Your task to perform on an android device: Check the weather Image 0: 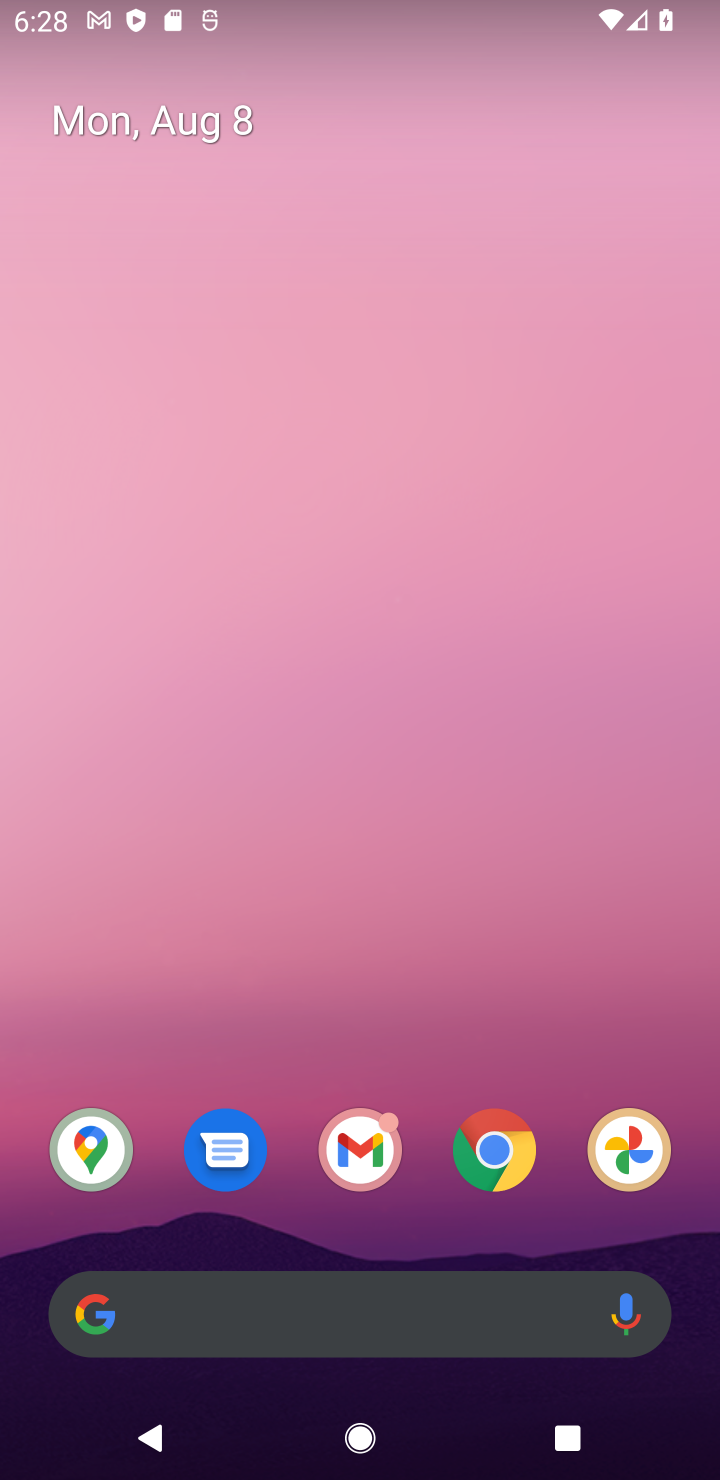
Step 0: drag from (433, 1228) to (271, 182)
Your task to perform on an android device: Check the weather Image 1: 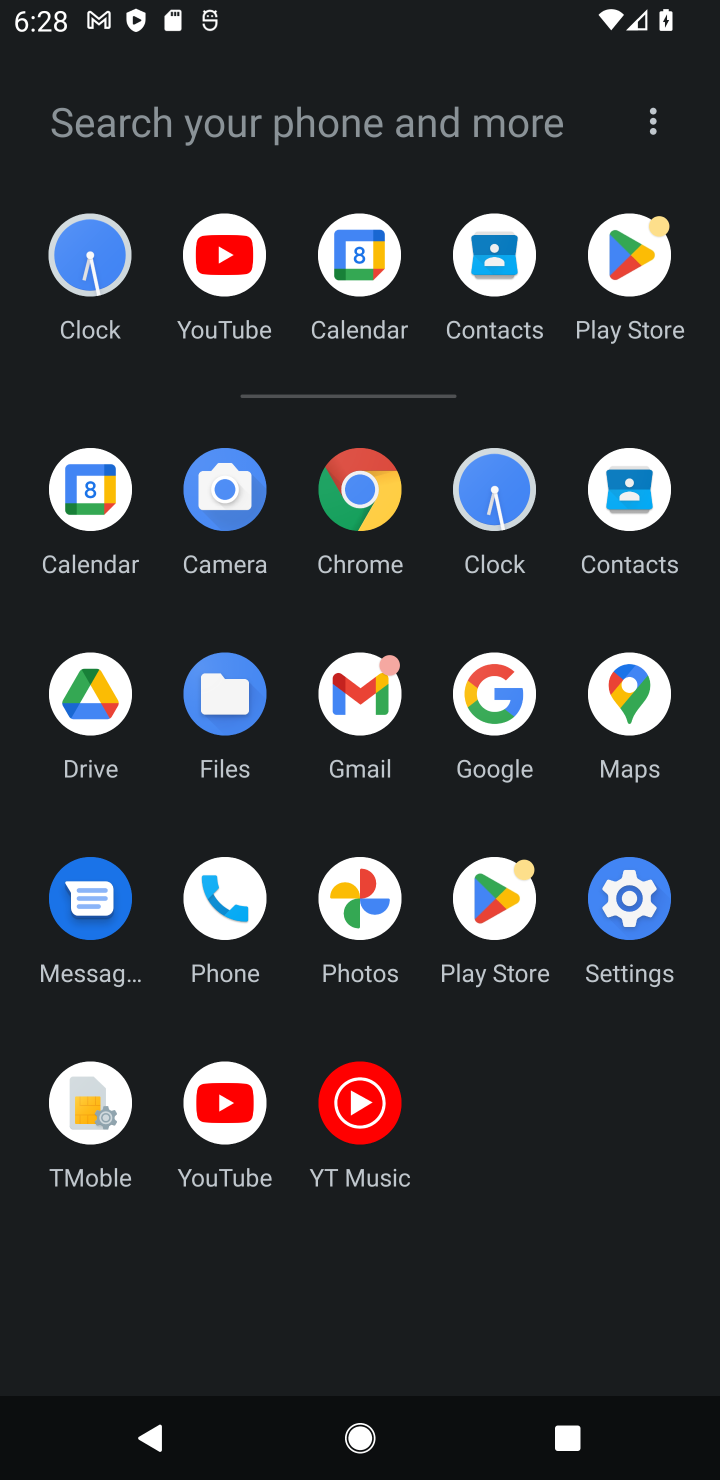
Step 1: click (406, 152)
Your task to perform on an android device: Check the weather Image 2: 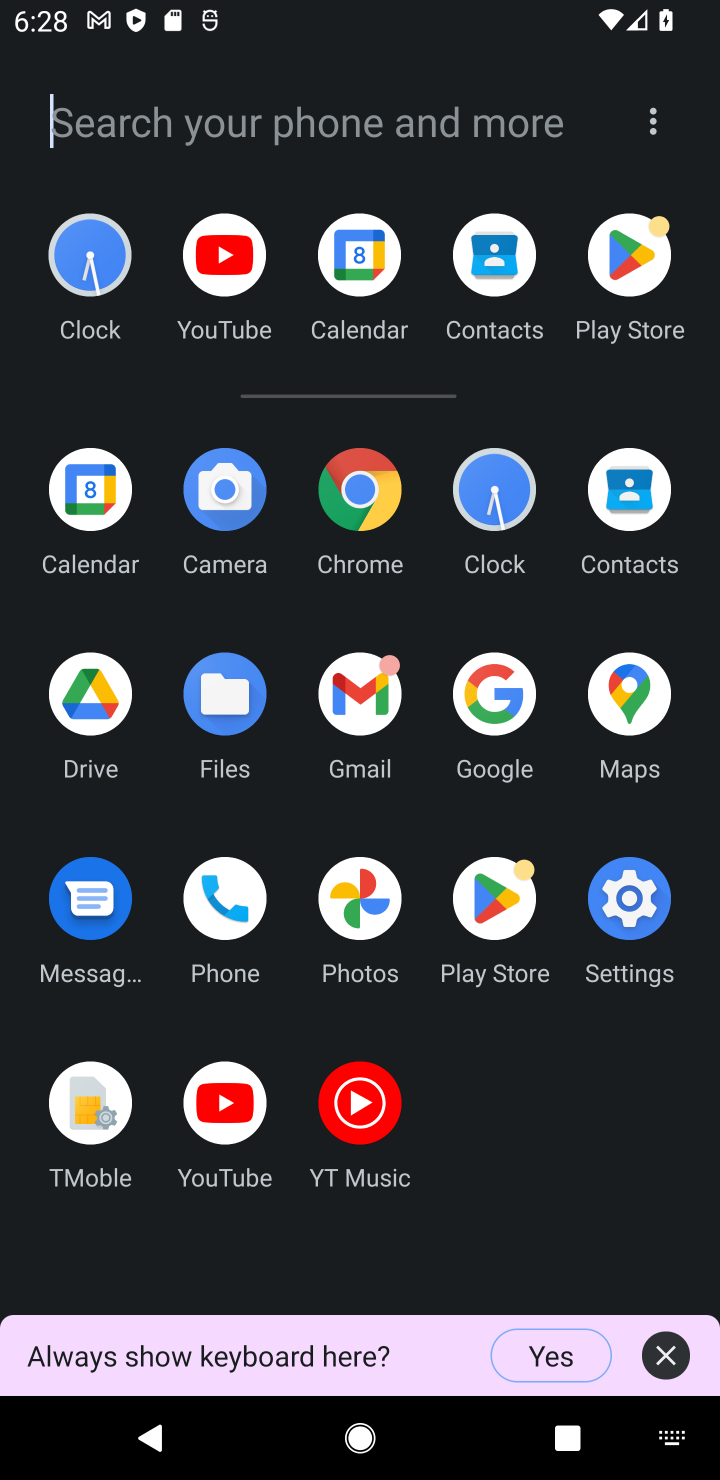
Step 2: type "weather"
Your task to perform on an android device: Check the weather Image 3: 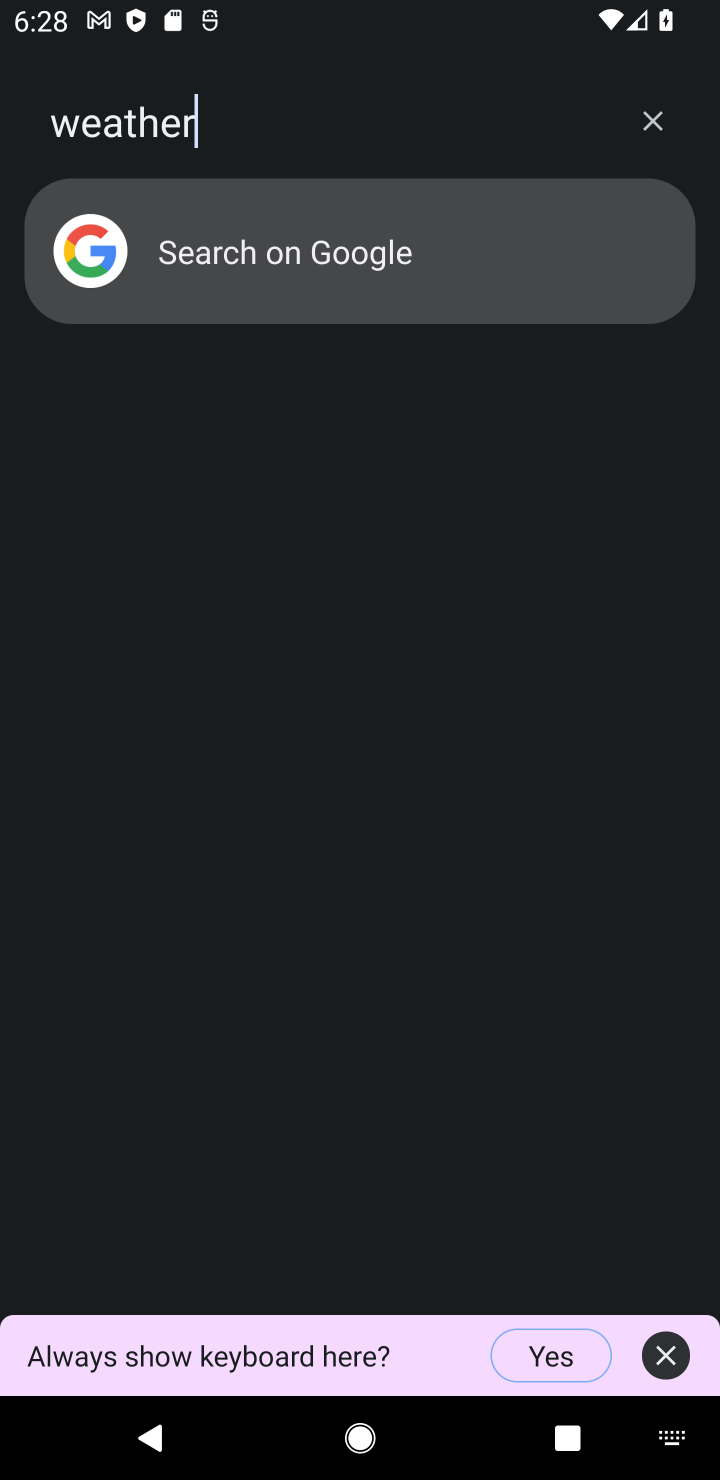
Step 3: task complete